Your task to perform on an android device: What's on my calendar today? Image 0: 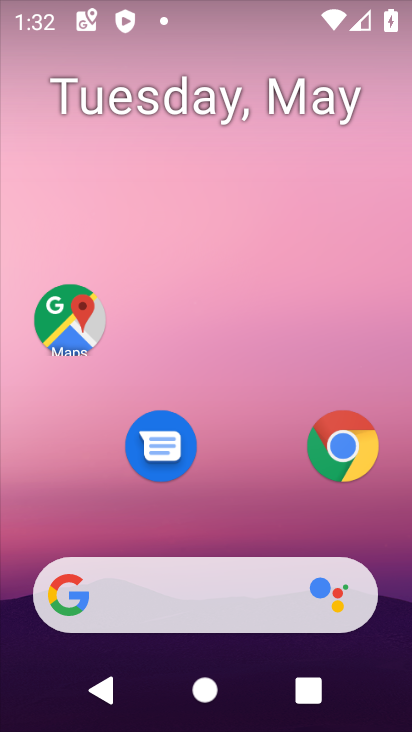
Step 0: drag from (177, 570) to (116, 56)
Your task to perform on an android device: What's on my calendar today? Image 1: 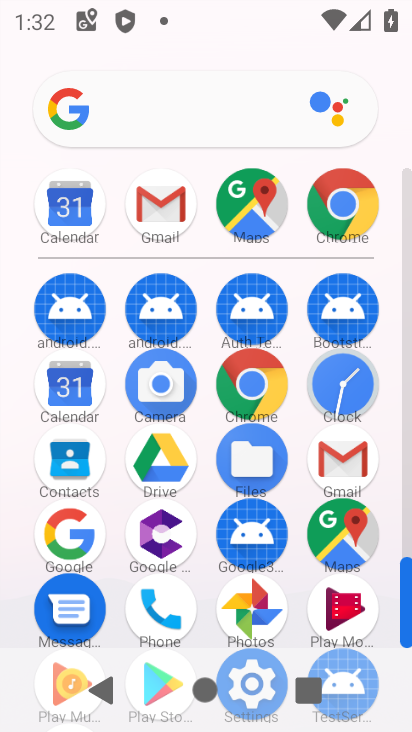
Step 1: click (54, 396)
Your task to perform on an android device: What's on my calendar today? Image 2: 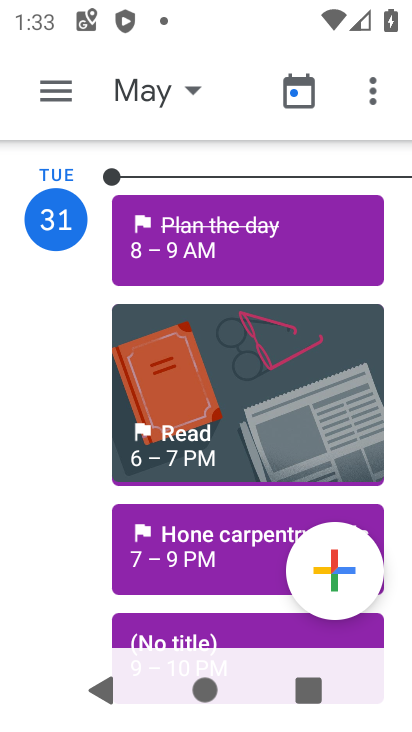
Step 2: click (44, 217)
Your task to perform on an android device: What's on my calendar today? Image 3: 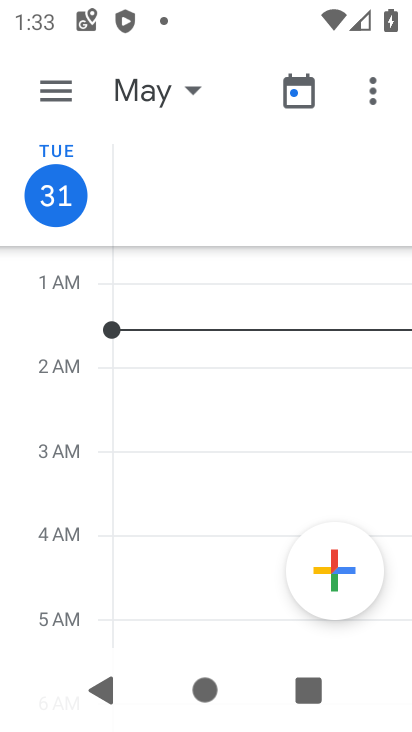
Step 3: task complete